Your task to perform on an android device: add a contact Image 0: 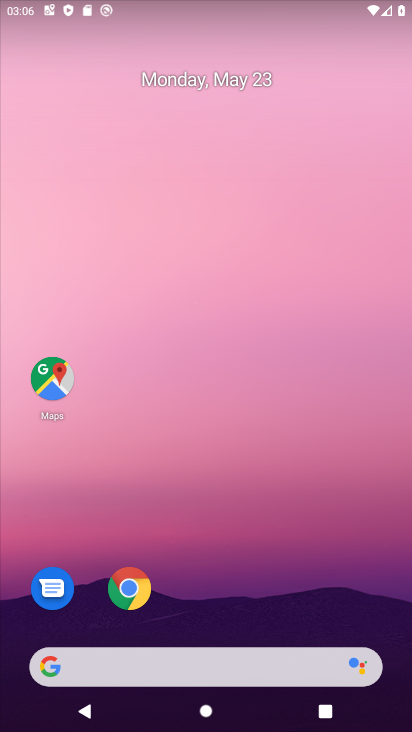
Step 0: click (132, 592)
Your task to perform on an android device: add a contact Image 1: 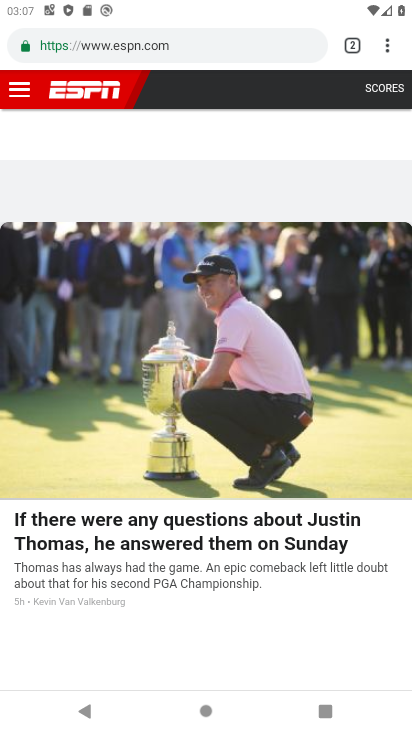
Step 1: press home button
Your task to perform on an android device: add a contact Image 2: 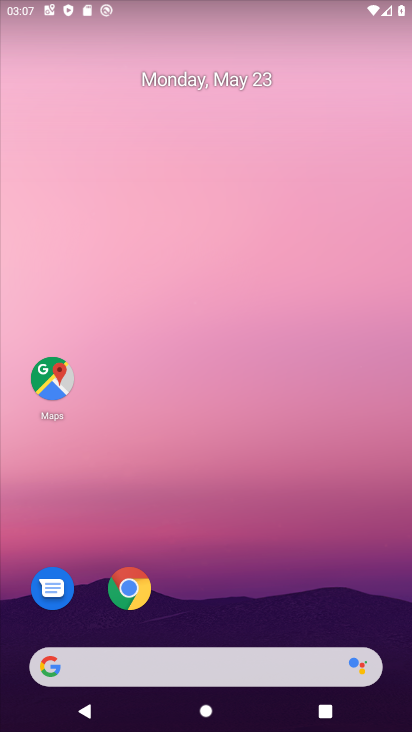
Step 2: drag from (230, 689) to (229, 235)
Your task to perform on an android device: add a contact Image 3: 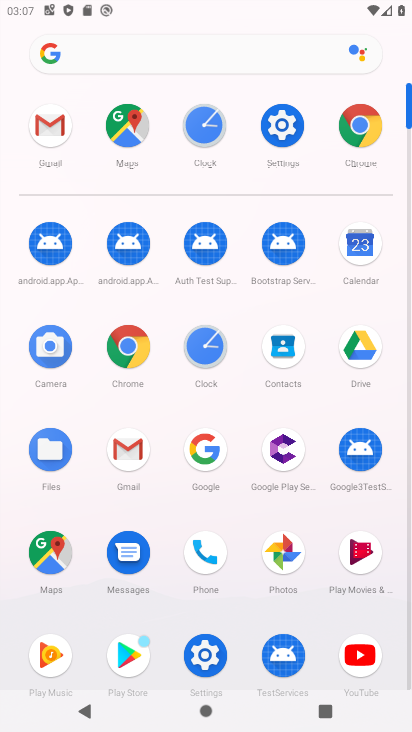
Step 3: click (281, 351)
Your task to perform on an android device: add a contact Image 4: 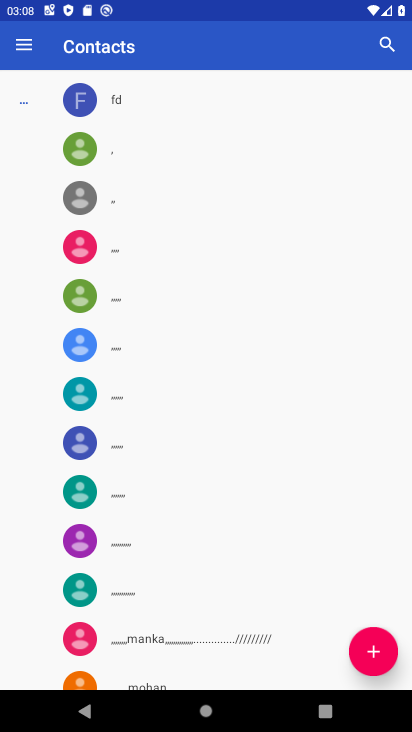
Step 4: click (373, 650)
Your task to perform on an android device: add a contact Image 5: 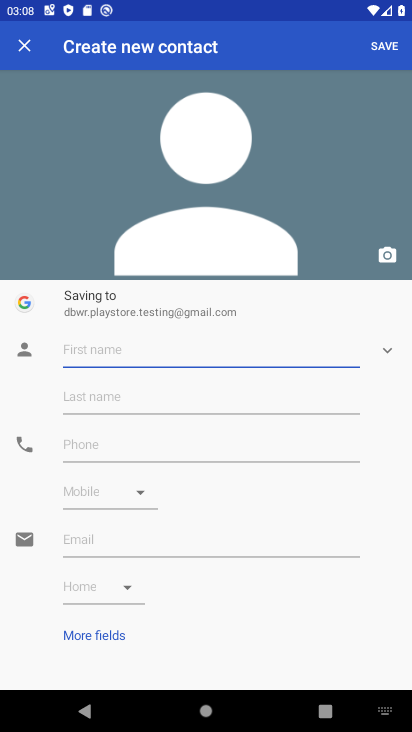
Step 5: type "ubantu"
Your task to perform on an android device: add a contact Image 6: 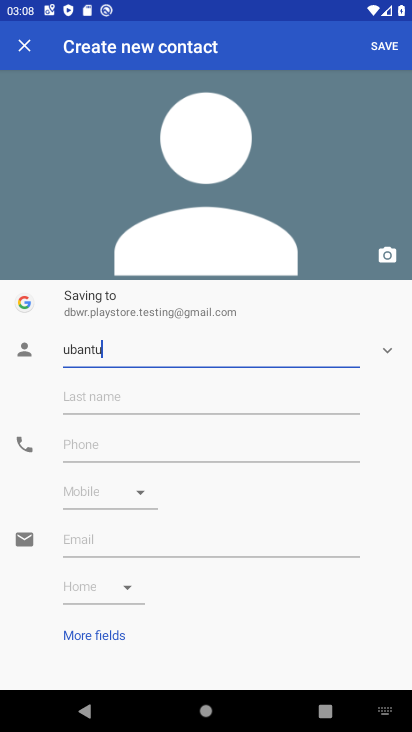
Step 6: type ""
Your task to perform on an android device: add a contact Image 7: 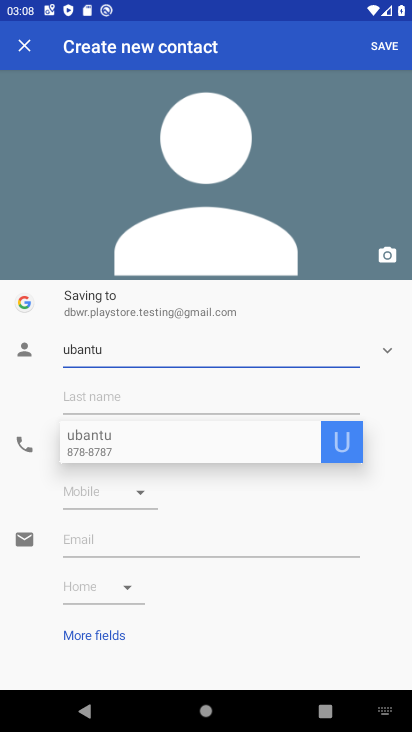
Step 7: type "chomu"
Your task to perform on an android device: add a contact Image 8: 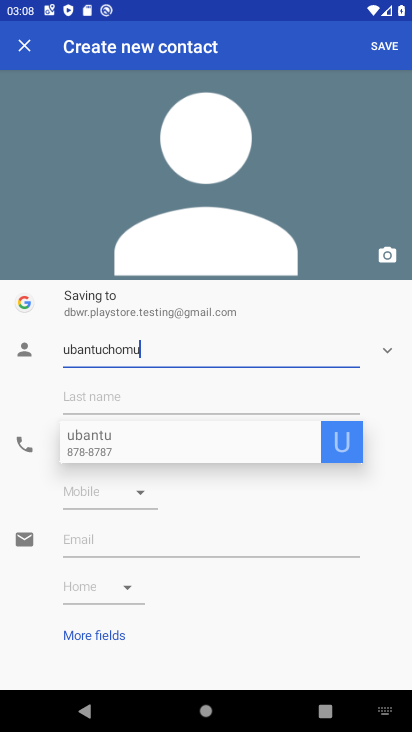
Step 8: type ""
Your task to perform on an android device: add a contact Image 9: 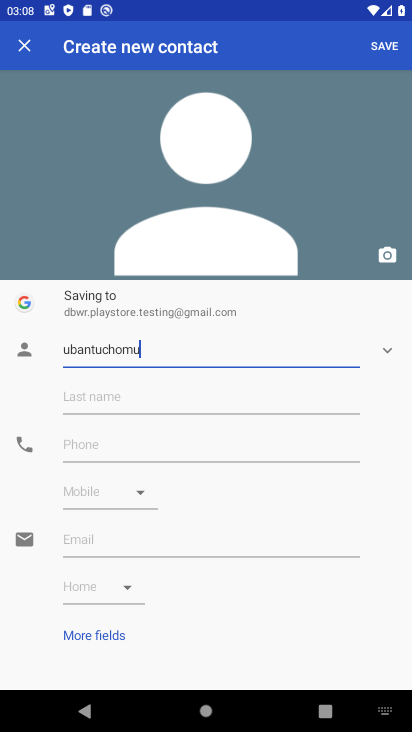
Step 9: click (139, 445)
Your task to perform on an android device: add a contact Image 10: 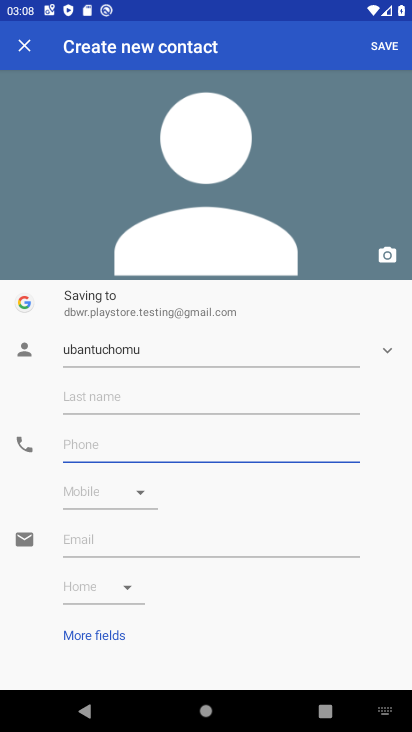
Step 10: type "8888"
Your task to perform on an android device: add a contact Image 11: 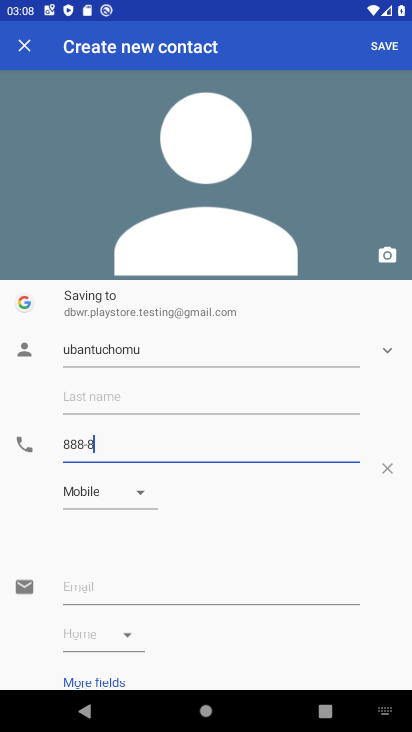
Step 11: type ""
Your task to perform on an android device: add a contact Image 12: 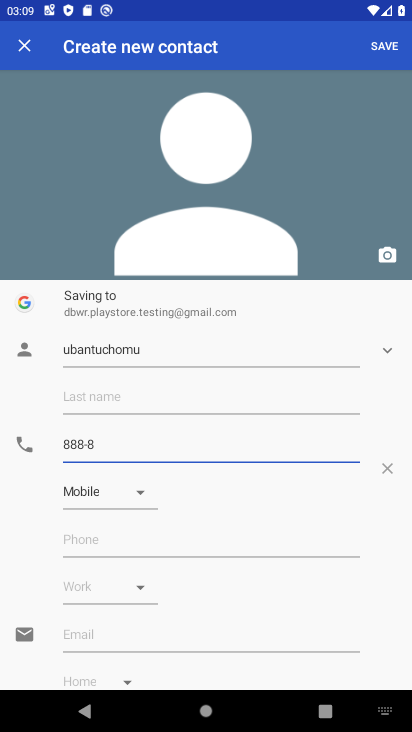
Step 12: click (392, 44)
Your task to perform on an android device: add a contact Image 13: 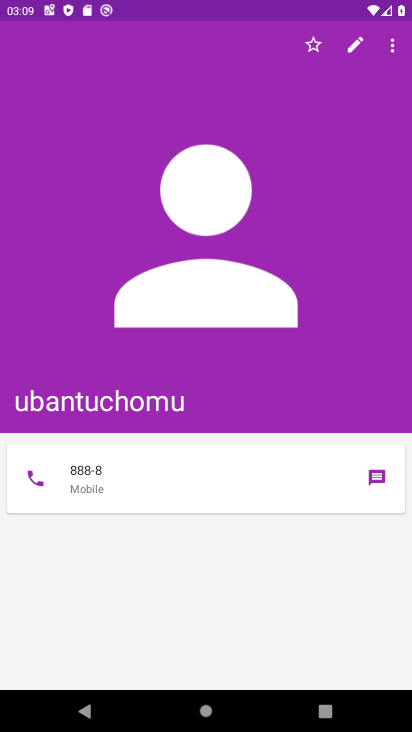
Step 13: task complete